Your task to perform on an android device: turn off location Image 0: 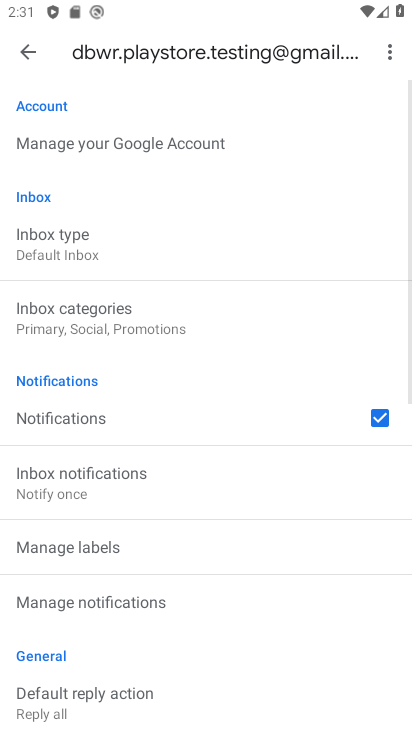
Step 0: drag from (202, 637) to (179, 326)
Your task to perform on an android device: turn off location Image 1: 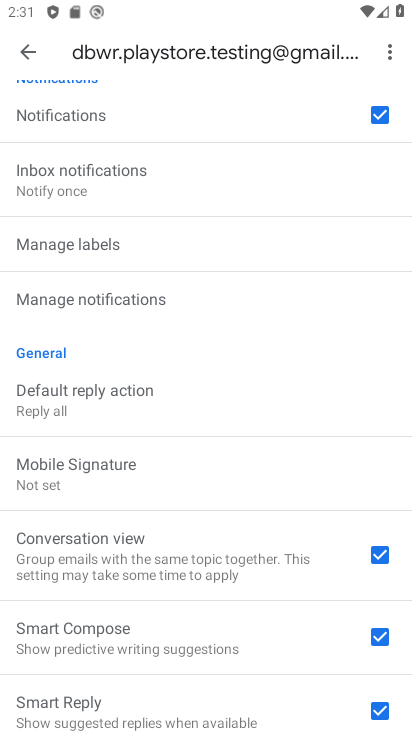
Step 1: press back button
Your task to perform on an android device: turn off location Image 2: 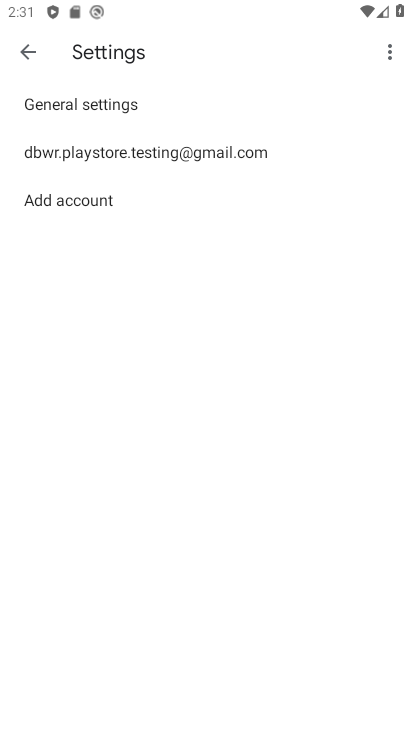
Step 2: press back button
Your task to perform on an android device: turn off location Image 3: 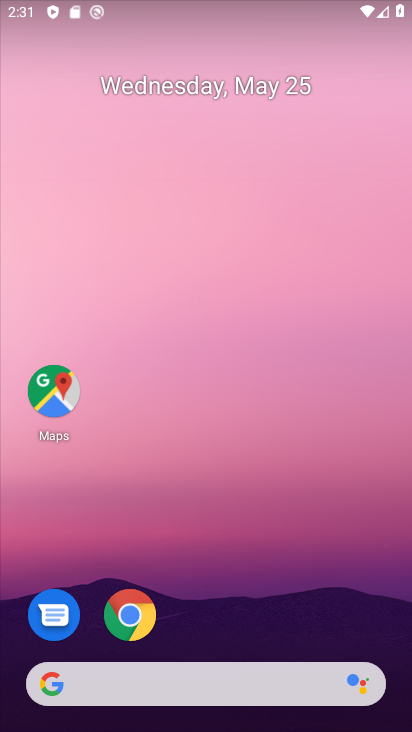
Step 3: drag from (282, 622) to (269, 192)
Your task to perform on an android device: turn off location Image 4: 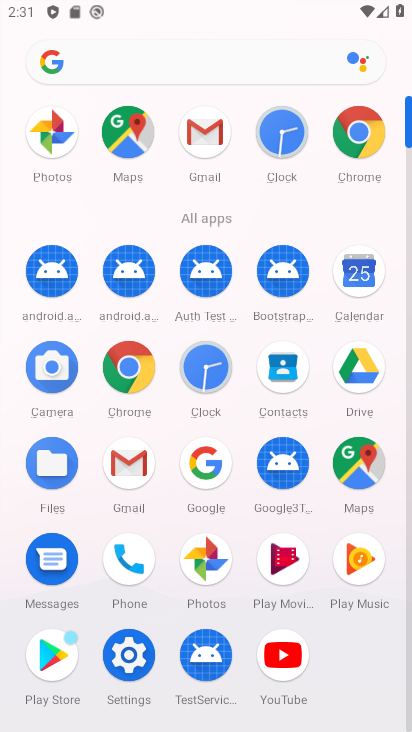
Step 4: click (142, 667)
Your task to perform on an android device: turn off location Image 5: 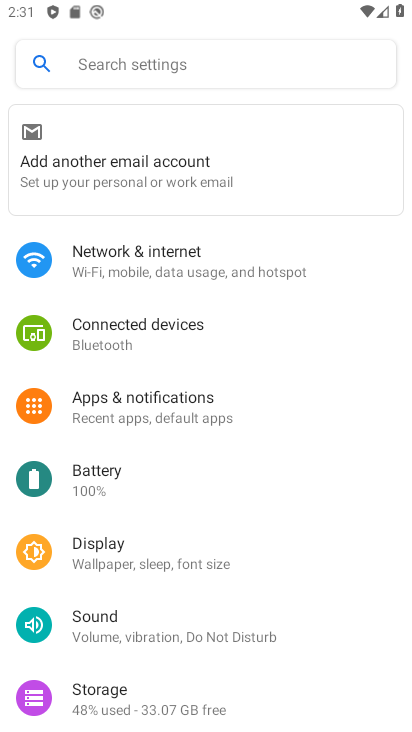
Step 5: drag from (201, 680) to (206, 302)
Your task to perform on an android device: turn off location Image 6: 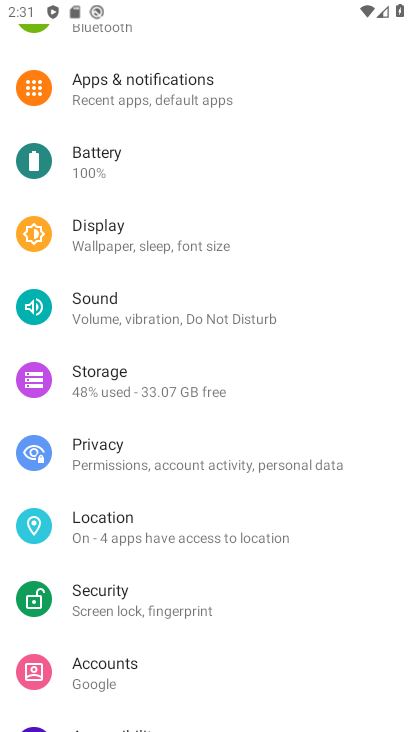
Step 6: click (206, 544)
Your task to perform on an android device: turn off location Image 7: 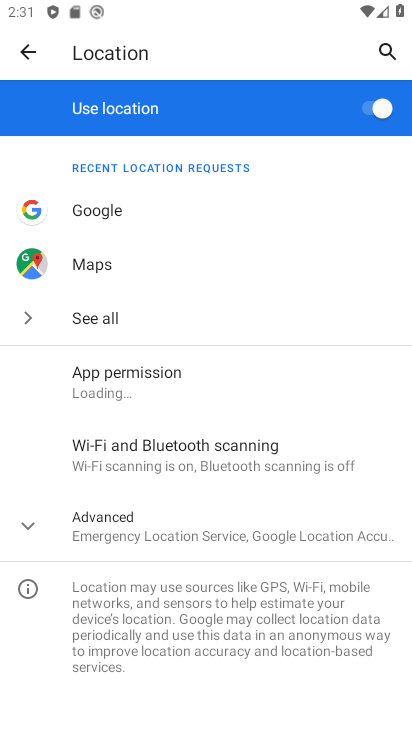
Step 7: click (371, 109)
Your task to perform on an android device: turn off location Image 8: 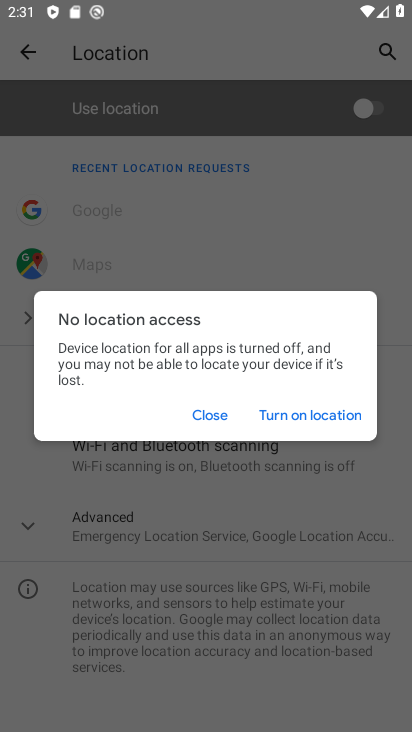
Step 8: task complete